Your task to perform on an android device: Open Google Chrome and open the bookmarks view Image 0: 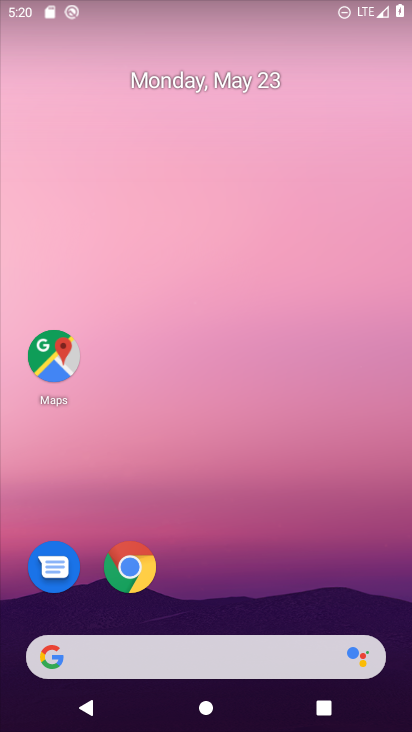
Step 0: click (133, 567)
Your task to perform on an android device: Open Google Chrome and open the bookmarks view Image 1: 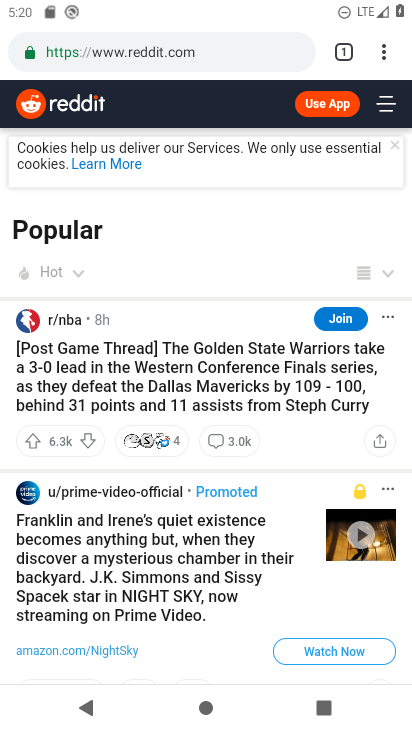
Step 1: click (384, 54)
Your task to perform on an android device: Open Google Chrome and open the bookmarks view Image 2: 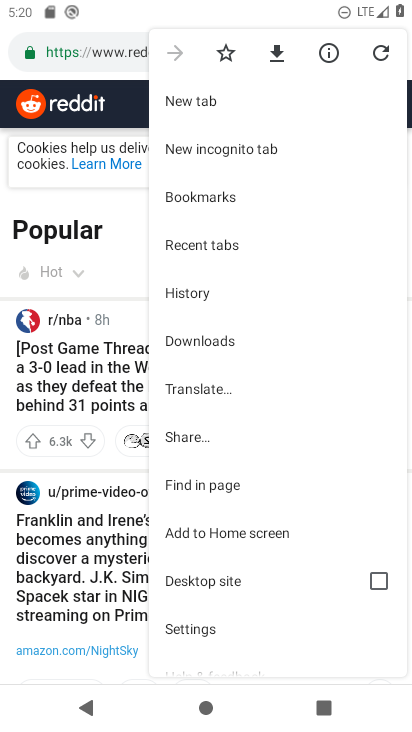
Step 2: click (210, 202)
Your task to perform on an android device: Open Google Chrome and open the bookmarks view Image 3: 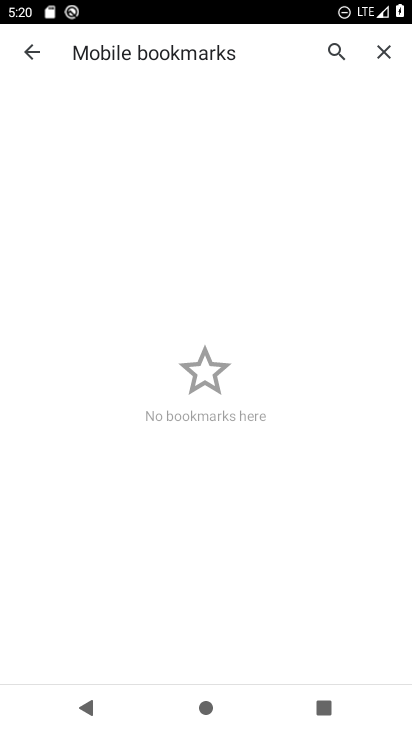
Step 3: task complete